Your task to perform on an android device: Go to calendar. Show me events next week Image 0: 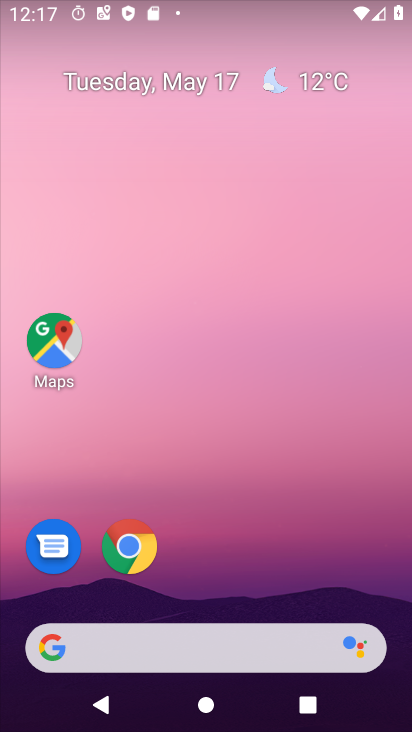
Step 0: press home button
Your task to perform on an android device: Go to calendar. Show me events next week Image 1: 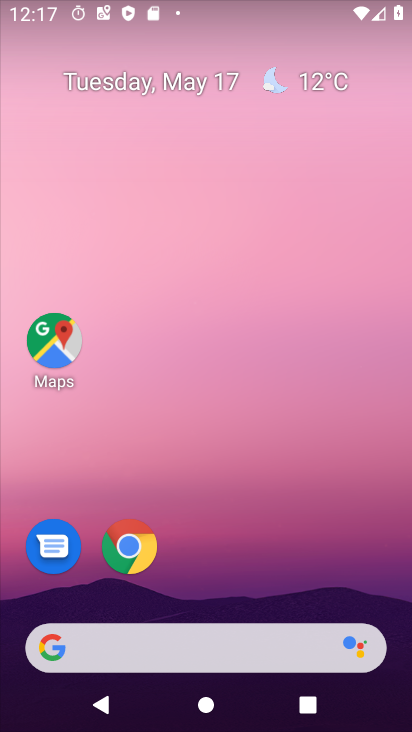
Step 1: drag from (191, 649) to (366, 92)
Your task to perform on an android device: Go to calendar. Show me events next week Image 2: 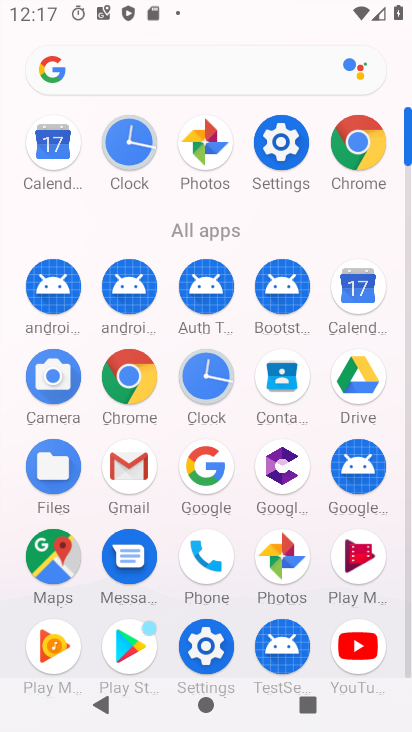
Step 2: click (365, 296)
Your task to perform on an android device: Go to calendar. Show me events next week Image 3: 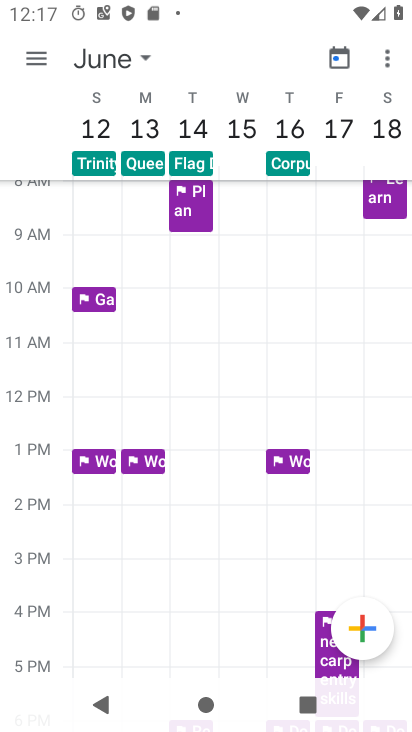
Step 3: click (89, 53)
Your task to perform on an android device: Go to calendar. Show me events next week Image 4: 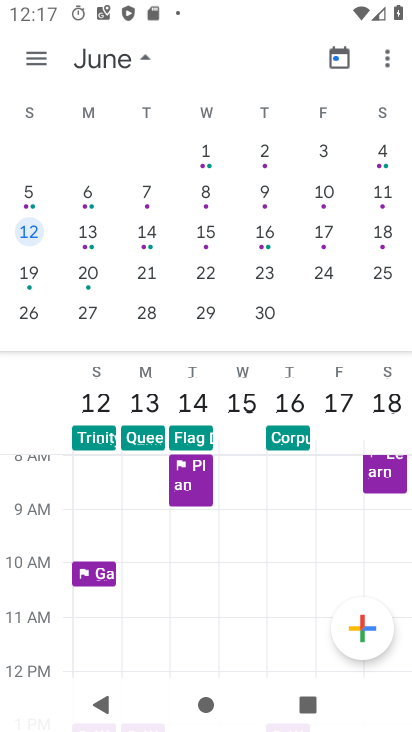
Step 4: drag from (126, 217) to (367, 275)
Your task to perform on an android device: Go to calendar. Show me events next week Image 5: 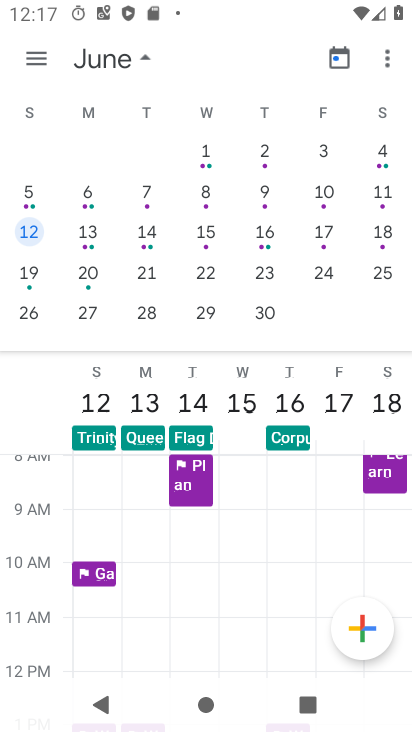
Step 5: drag from (68, 181) to (395, 263)
Your task to perform on an android device: Go to calendar. Show me events next week Image 6: 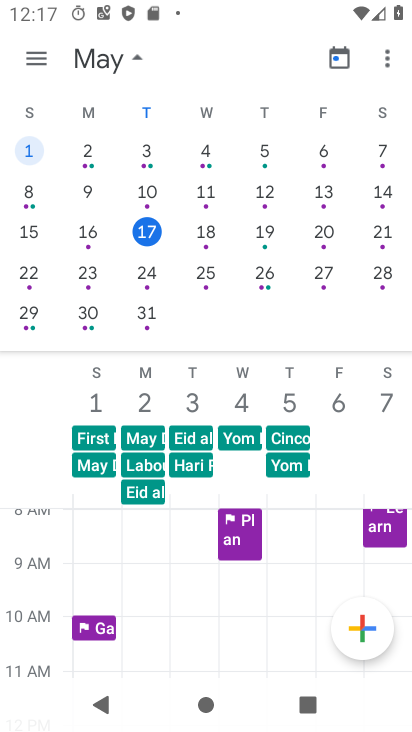
Step 6: click (335, 57)
Your task to perform on an android device: Go to calendar. Show me events next week Image 7: 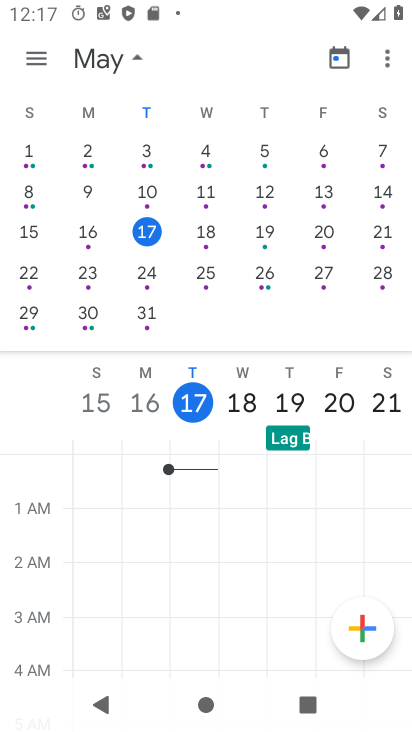
Step 7: click (27, 274)
Your task to perform on an android device: Go to calendar. Show me events next week Image 8: 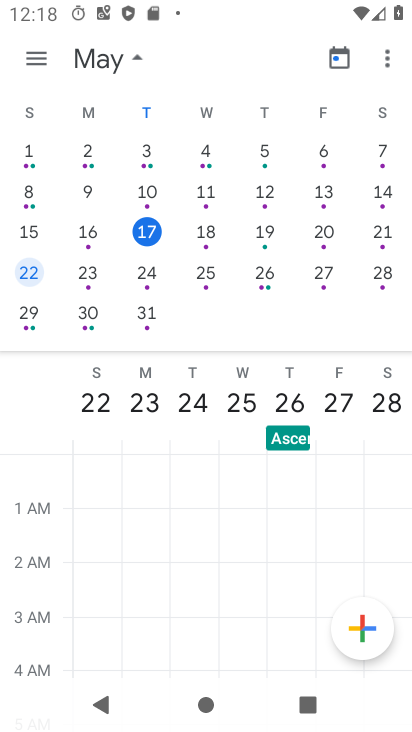
Step 8: click (36, 49)
Your task to perform on an android device: Go to calendar. Show me events next week Image 9: 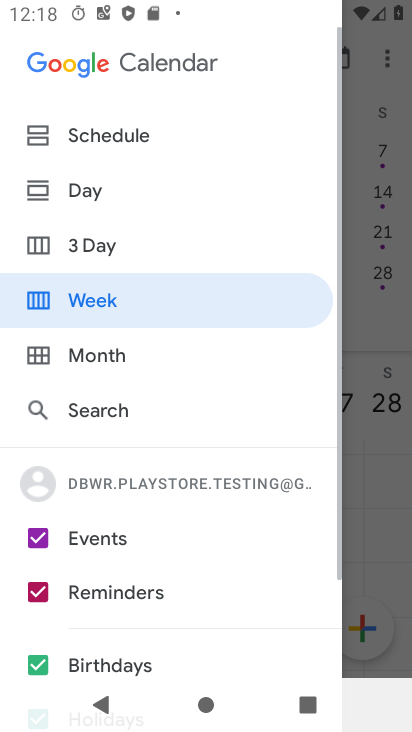
Step 9: click (92, 295)
Your task to perform on an android device: Go to calendar. Show me events next week Image 10: 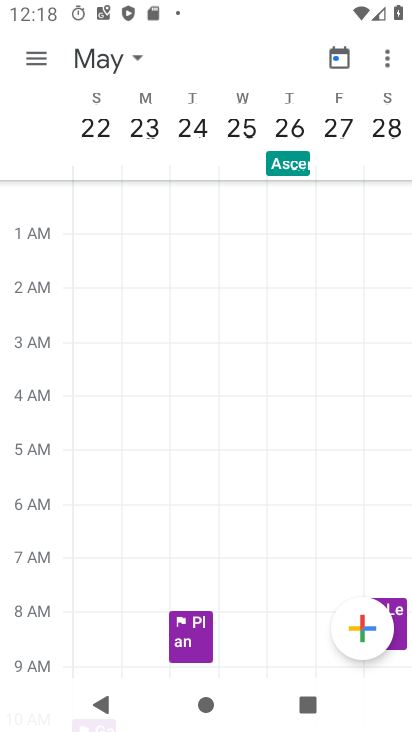
Step 10: click (48, 58)
Your task to perform on an android device: Go to calendar. Show me events next week Image 11: 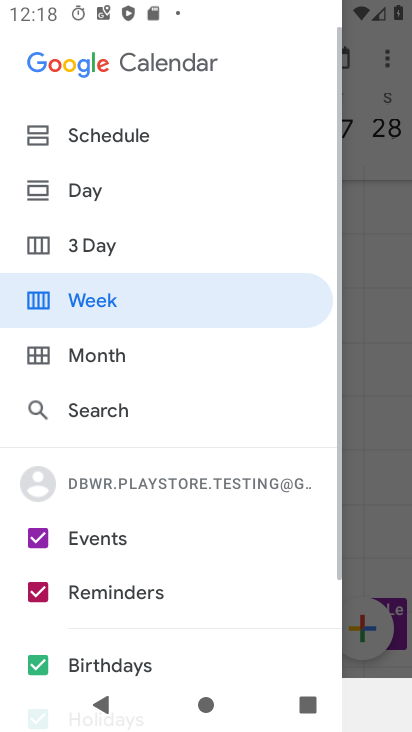
Step 11: click (119, 131)
Your task to perform on an android device: Go to calendar. Show me events next week Image 12: 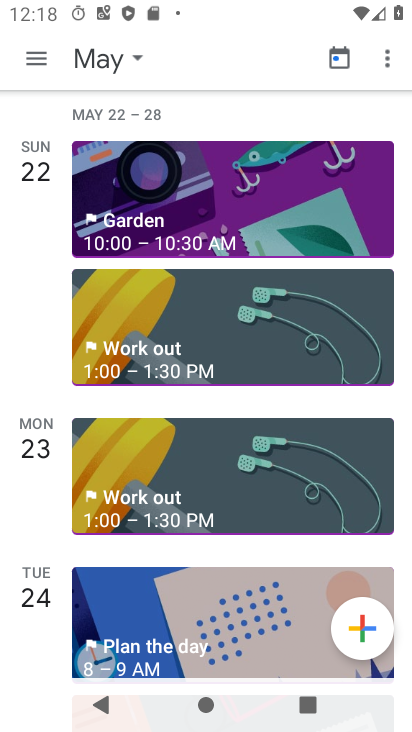
Step 12: click (280, 221)
Your task to perform on an android device: Go to calendar. Show me events next week Image 13: 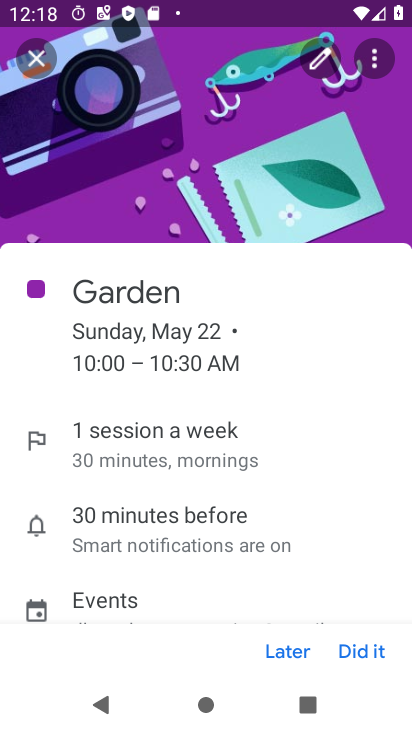
Step 13: task complete